Your task to perform on an android device: Open Youtube and go to "Your channel" Image 0: 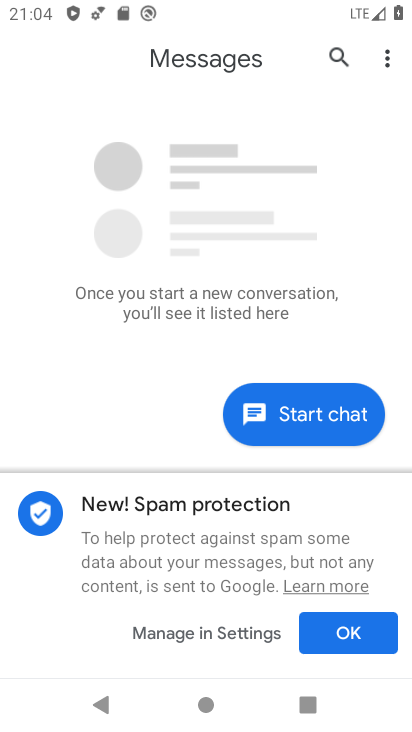
Step 0: press home button
Your task to perform on an android device: Open Youtube and go to "Your channel" Image 1: 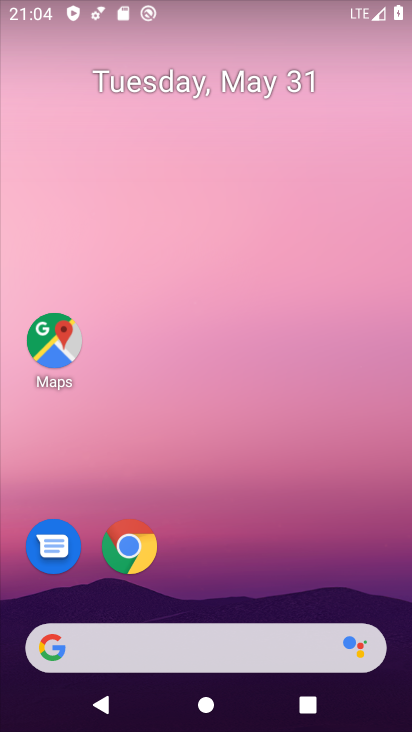
Step 1: drag from (391, 638) to (337, 119)
Your task to perform on an android device: Open Youtube and go to "Your channel" Image 2: 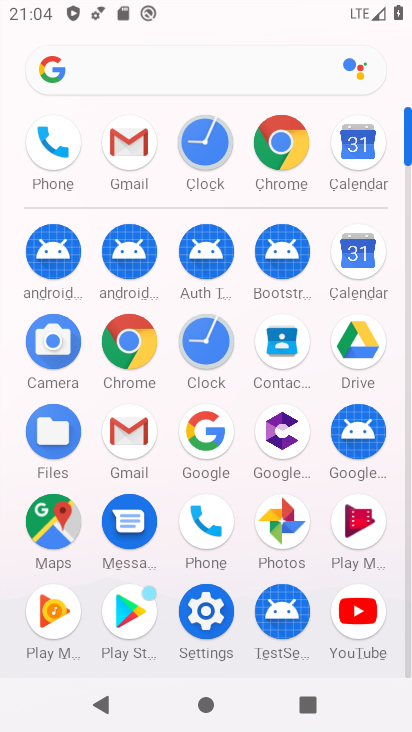
Step 2: click (353, 613)
Your task to perform on an android device: Open Youtube and go to "Your channel" Image 3: 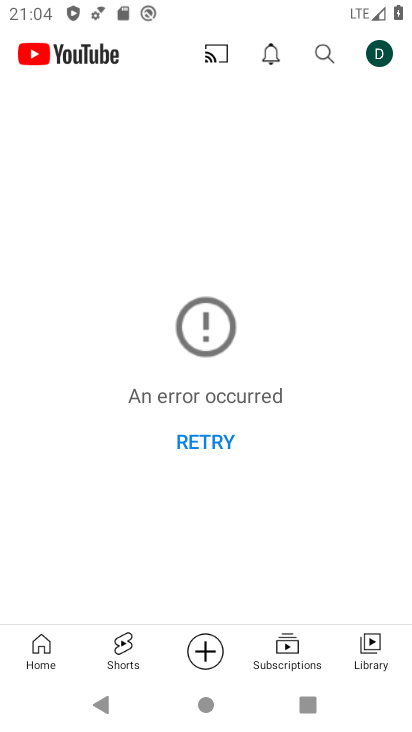
Step 3: click (385, 57)
Your task to perform on an android device: Open Youtube and go to "Your channel" Image 4: 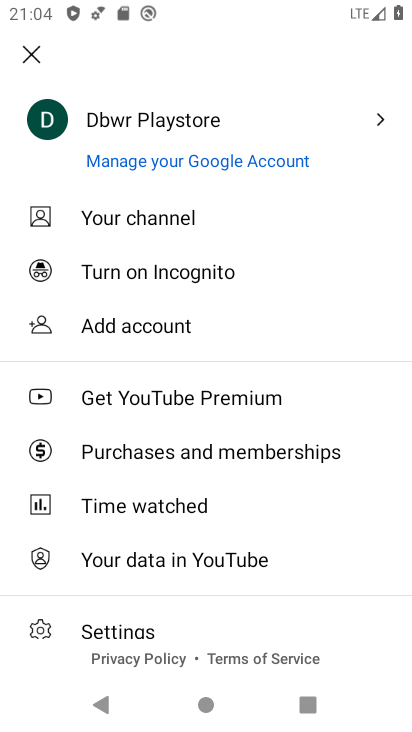
Step 4: click (106, 220)
Your task to perform on an android device: Open Youtube and go to "Your channel" Image 5: 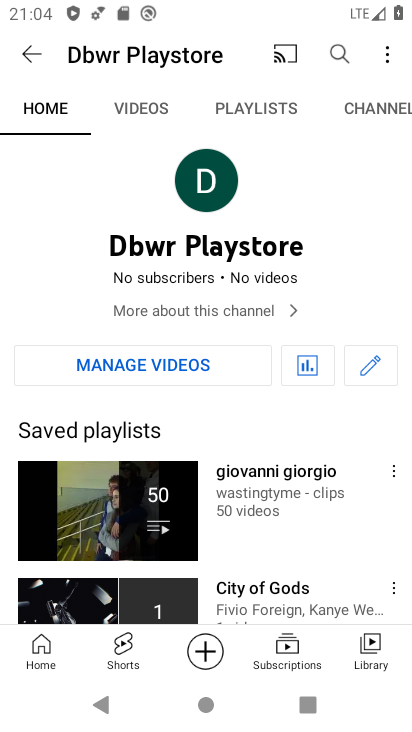
Step 5: task complete